Your task to perform on an android device: Go to accessibility settings Image 0: 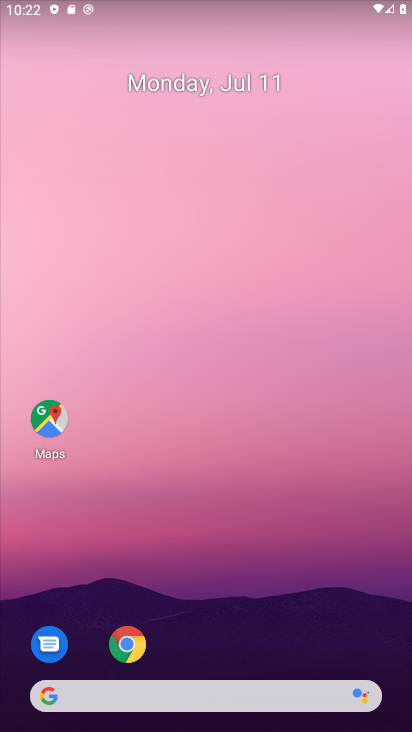
Step 0: click (237, 329)
Your task to perform on an android device: Go to accessibility settings Image 1: 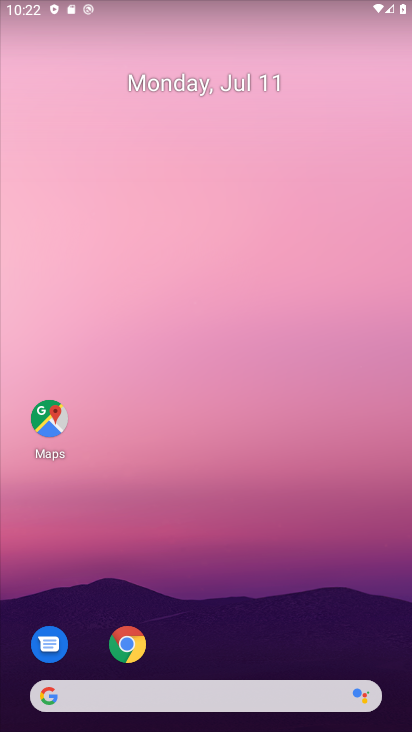
Step 1: drag from (233, 649) to (224, 263)
Your task to perform on an android device: Go to accessibility settings Image 2: 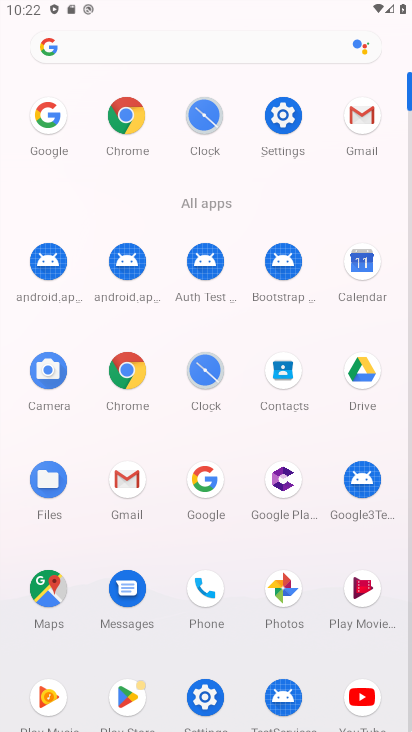
Step 2: click (193, 691)
Your task to perform on an android device: Go to accessibility settings Image 3: 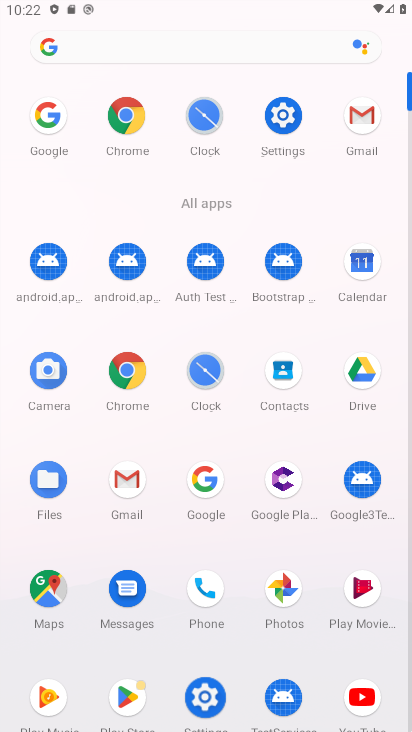
Step 3: click (191, 689)
Your task to perform on an android device: Go to accessibility settings Image 4: 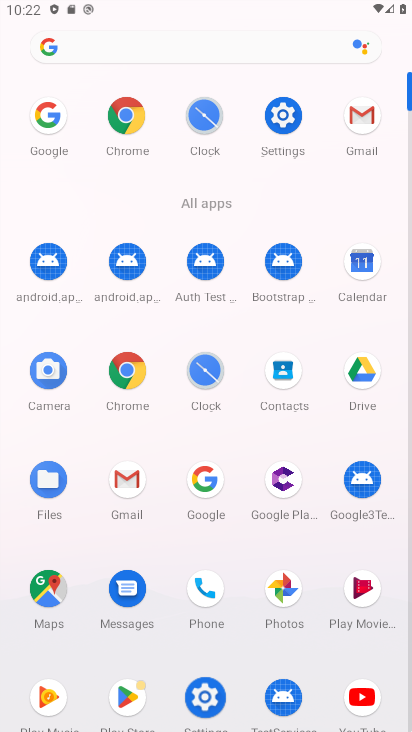
Step 4: click (189, 688)
Your task to perform on an android device: Go to accessibility settings Image 5: 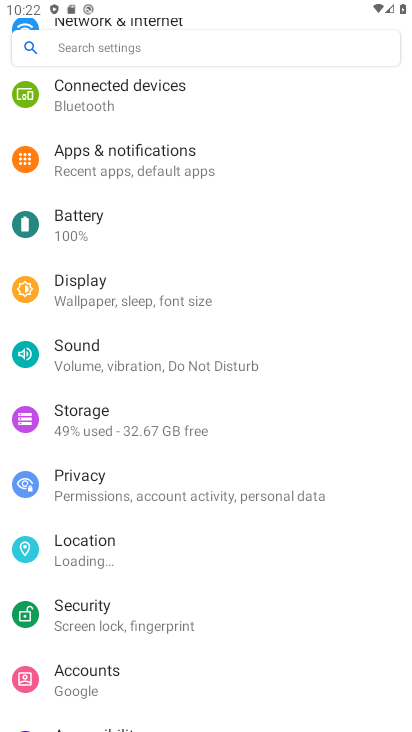
Step 5: drag from (138, 644) to (86, 140)
Your task to perform on an android device: Go to accessibility settings Image 6: 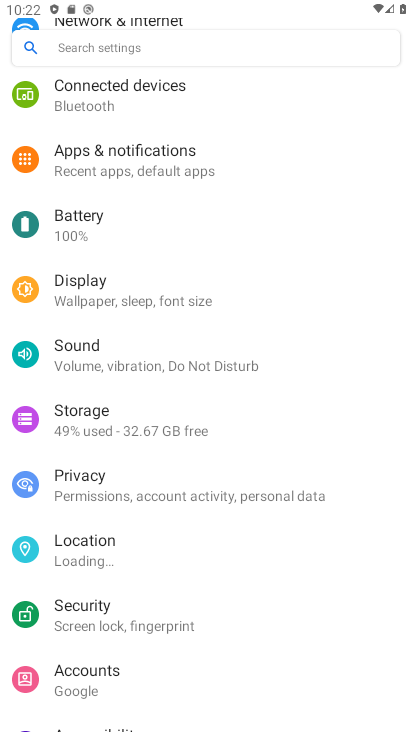
Step 6: drag from (159, 378) to (157, 178)
Your task to perform on an android device: Go to accessibility settings Image 7: 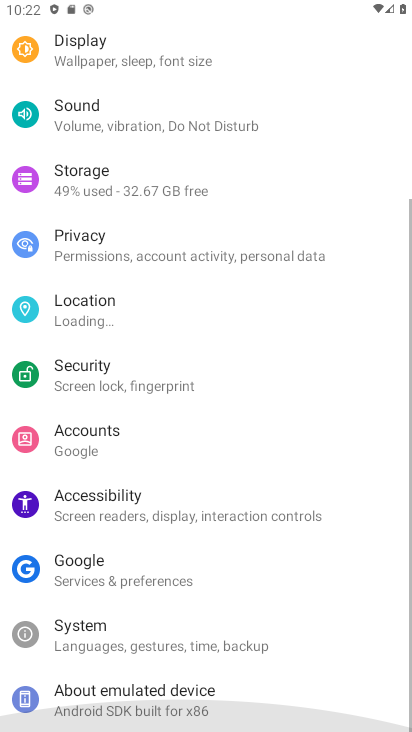
Step 7: drag from (201, 448) to (201, 238)
Your task to perform on an android device: Go to accessibility settings Image 8: 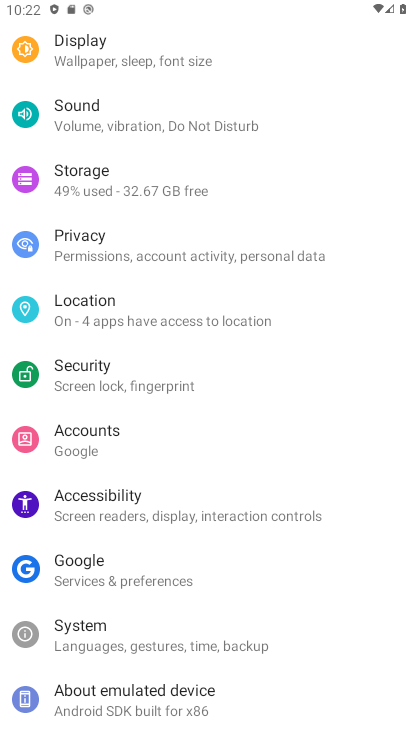
Step 8: click (85, 512)
Your task to perform on an android device: Go to accessibility settings Image 9: 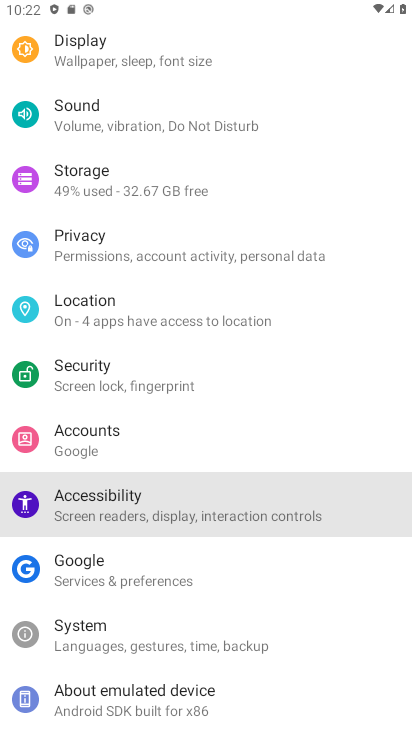
Step 9: click (88, 507)
Your task to perform on an android device: Go to accessibility settings Image 10: 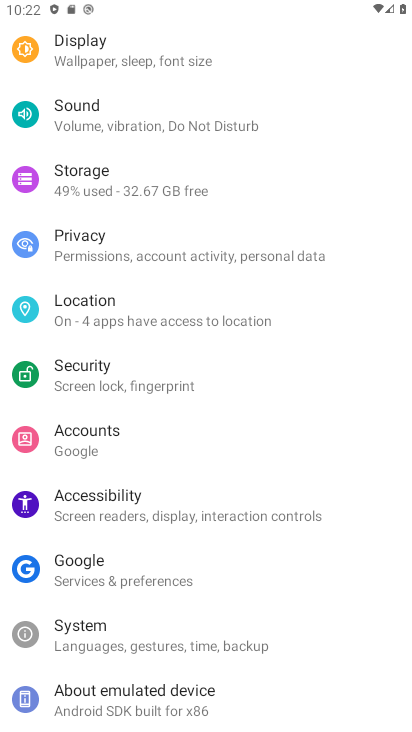
Step 10: click (88, 507)
Your task to perform on an android device: Go to accessibility settings Image 11: 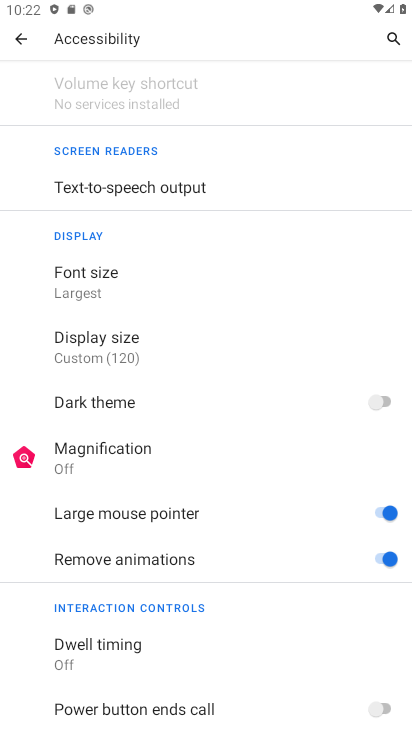
Step 11: task complete